Your task to perform on an android device: Show the shopping cart on newegg.com. Add "usb-a" to the cart on newegg.com Image 0: 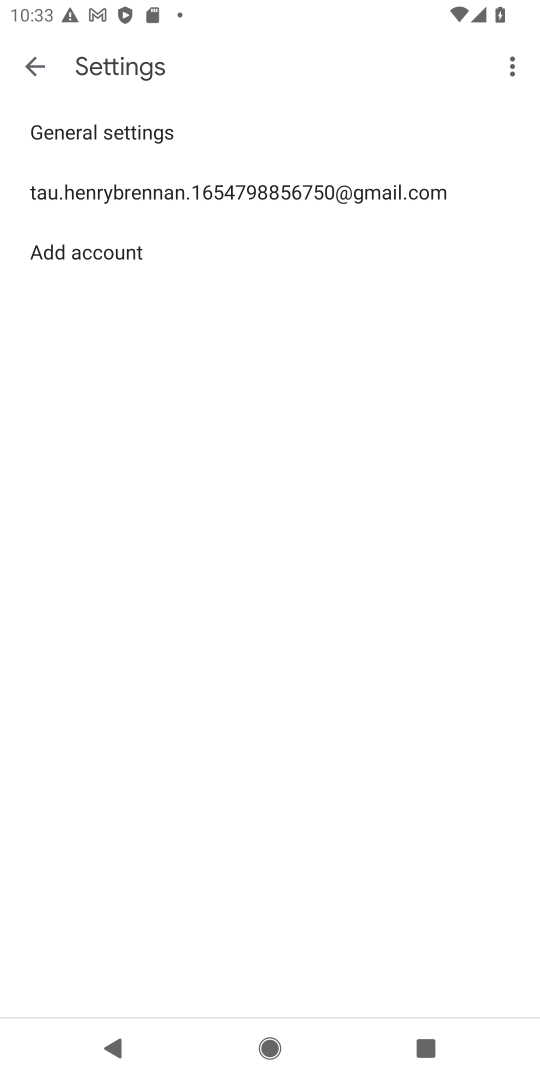
Step 0: press home button
Your task to perform on an android device: Show the shopping cart on newegg.com. Add "usb-a" to the cart on newegg.com Image 1: 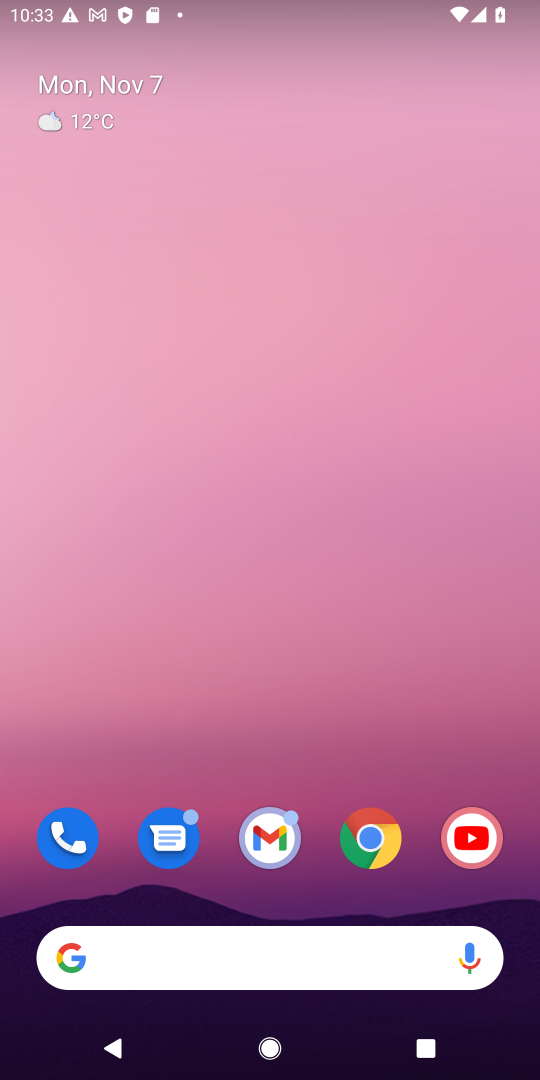
Step 1: click (375, 847)
Your task to perform on an android device: Show the shopping cart on newegg.com. Add "usb-a" to the cart on newegg.com Image 2: 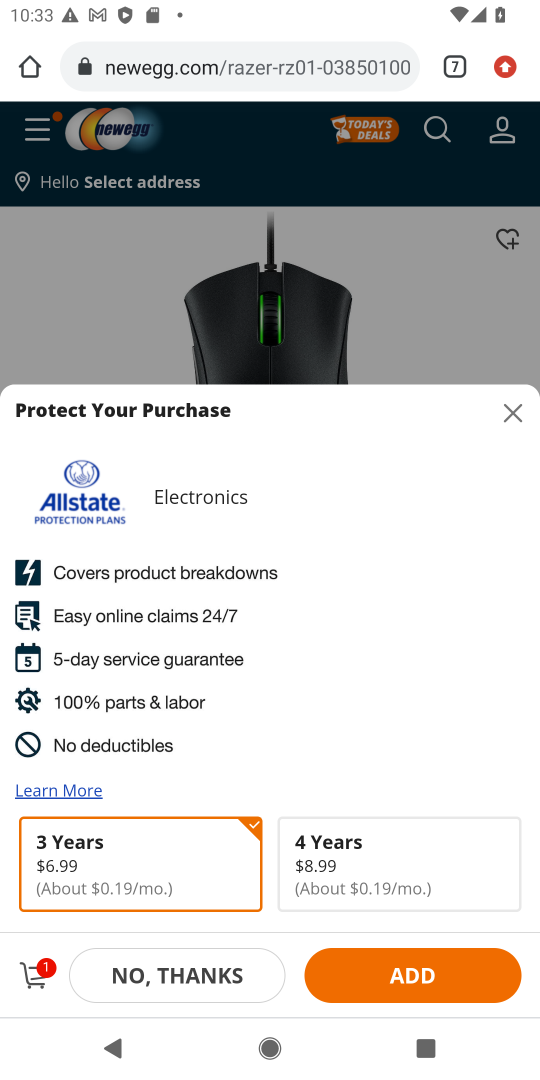
Step 2: click (511, 411)
Your task to perform on an android device: Show the shopping cart on newegg.com. Add "usb-a" to the cart on newegg.com Image 3: 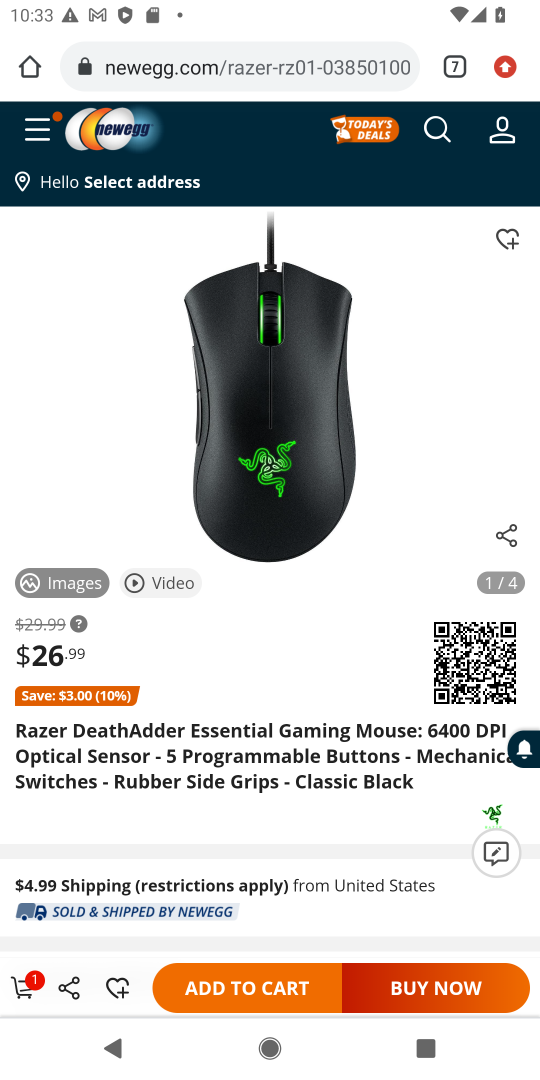
Step 3: click (447, 64)
Your task to perform on an android device: Show the shopping cart on newegg.com. Add "usb-a" to the cart on newegg.com Image 4: 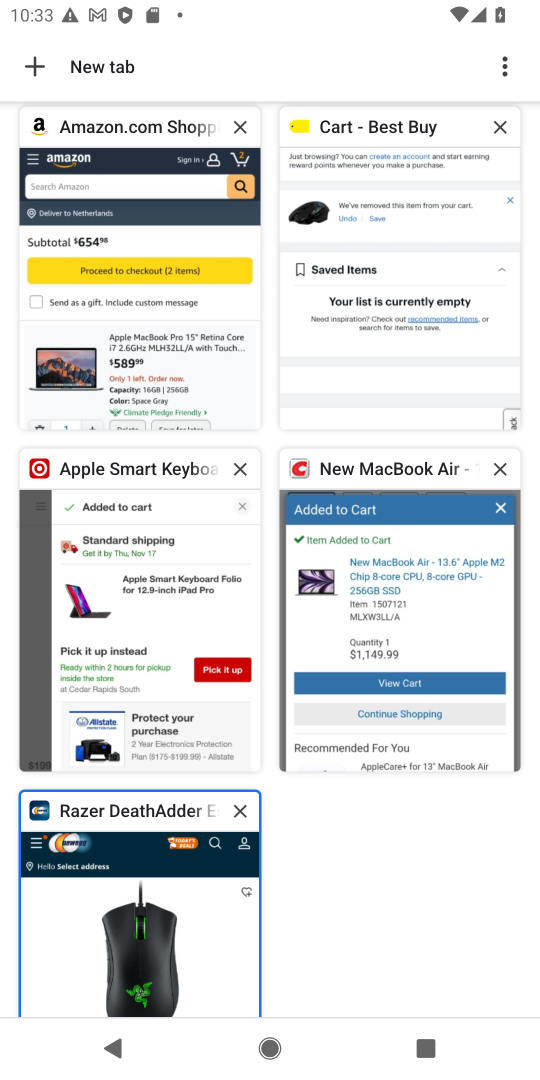
Step 4: click (86, 927)
Your task to perform on an android device: Show the shopping cart on newegg.com. Add "usb-a" to the cart on newegg.com Image 5: 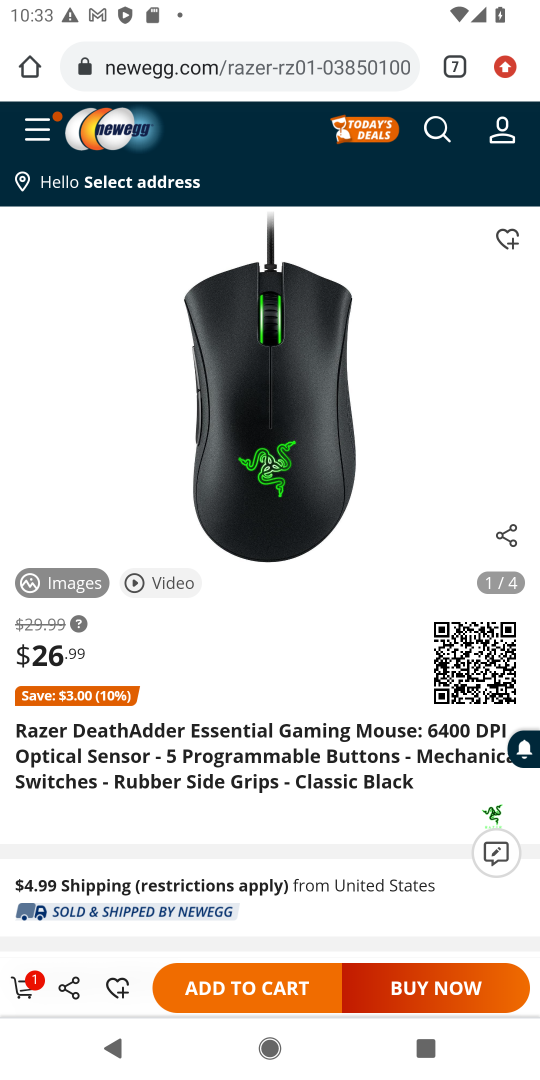
Step 5: click (436, 123)
Your task to perform on an android device: Show the shopping cart on newegg.com. Add "usb-a" to the cart on newegg.com Image 6: 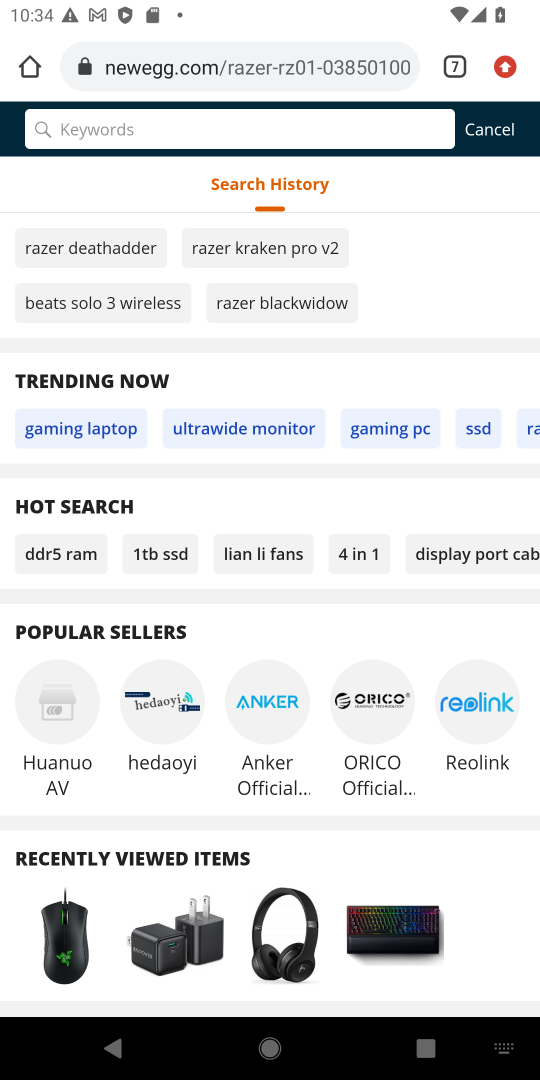
Step 6: type "usb-a"
Your task to perform on an android device: Show the shopping cart on newegg.com. Add "usb-a" to the cart on newegg.com Image 7: 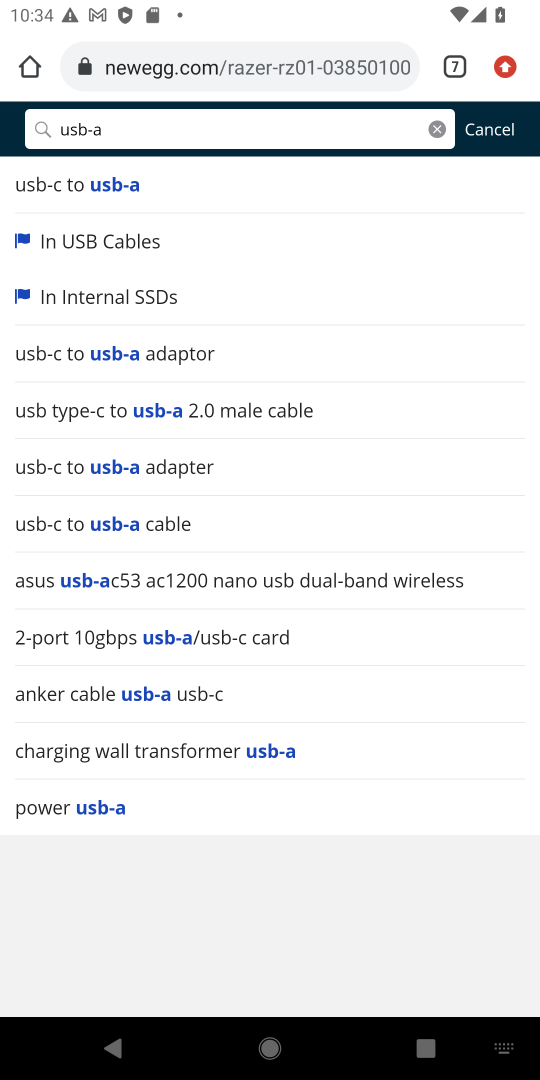
Step 7: click (94, 810)
Your task to perform on an android device: Show the shopping cart on newegg.com. Add "usb-a" to the cart on newegg.com Image 8: 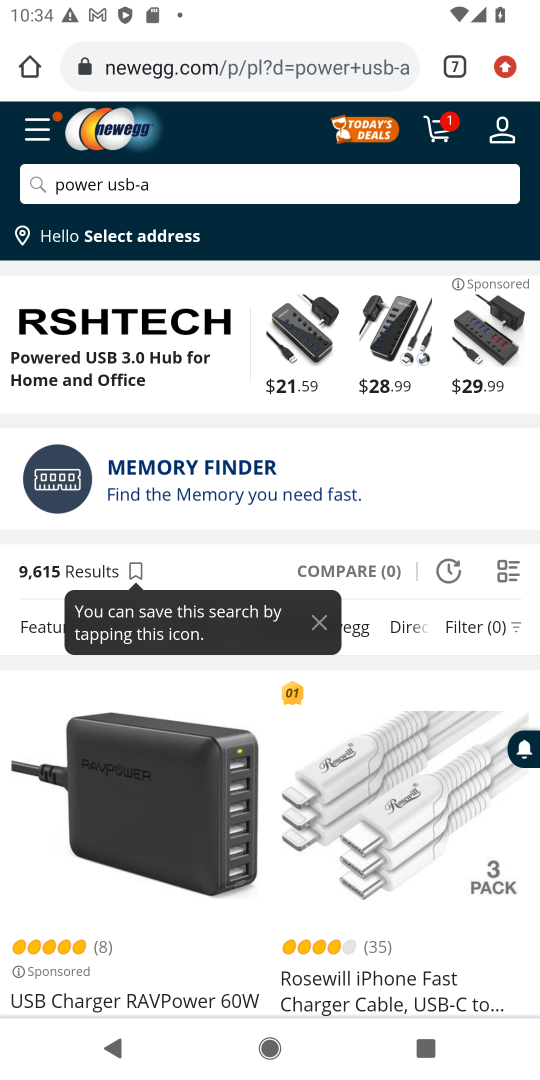
Step 8: drag from (142, 910) to (231, 698)
Your task to perform on an android device: Show the shopping cart on newegg.com. Add "usb-a" to the cart on newegg.com Image 9: 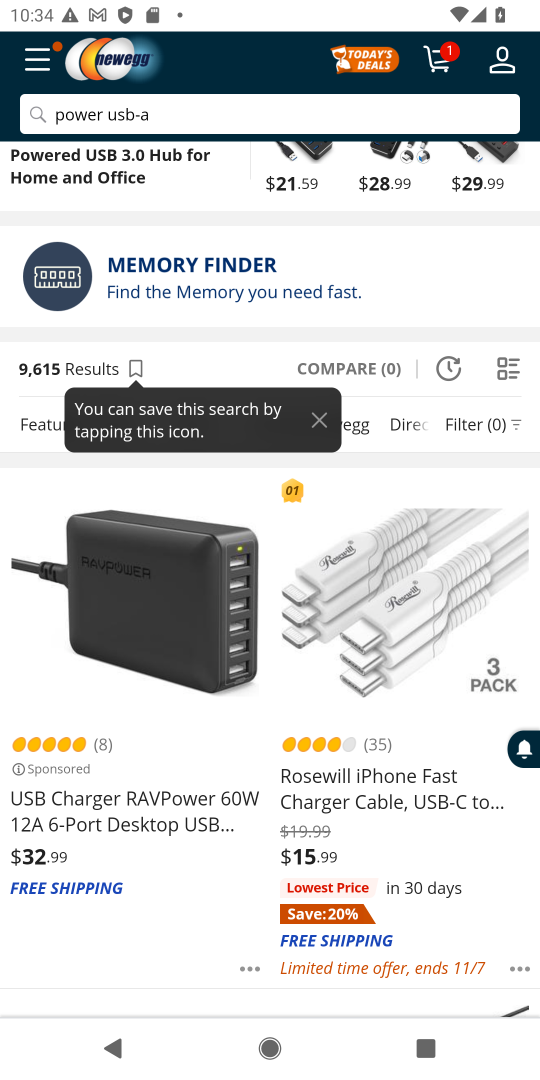
Step 9: click (110, 801)
Your task to perform on an android device: Show the shopping cart on newegg.com. Add "usb-a" to the cart on newegg.com Image 10: 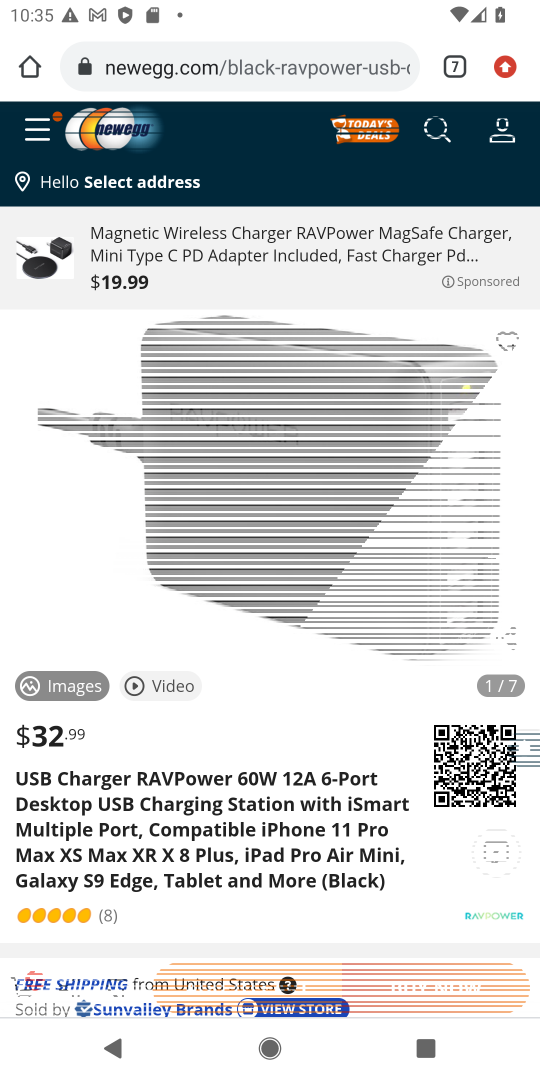
Step 10: click (246, 975)
Your task to perform on an android device: Show the shopping cart on newegg.com. Add "usb-a" to the cart on newegg.com Image 11: 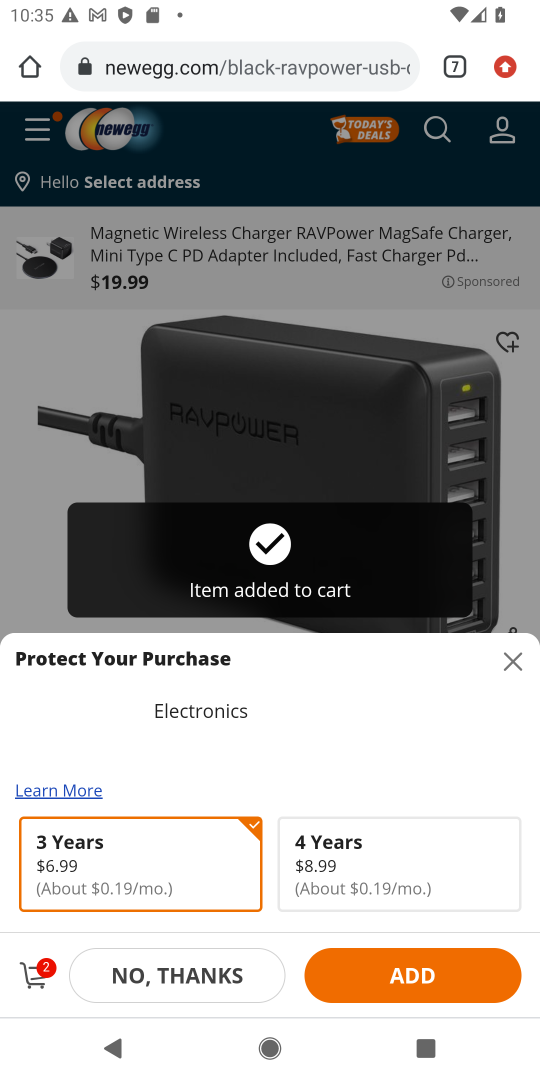
Step 11: task complete